Your task to perform on an android device: change the clock display to show seconds Image 0: 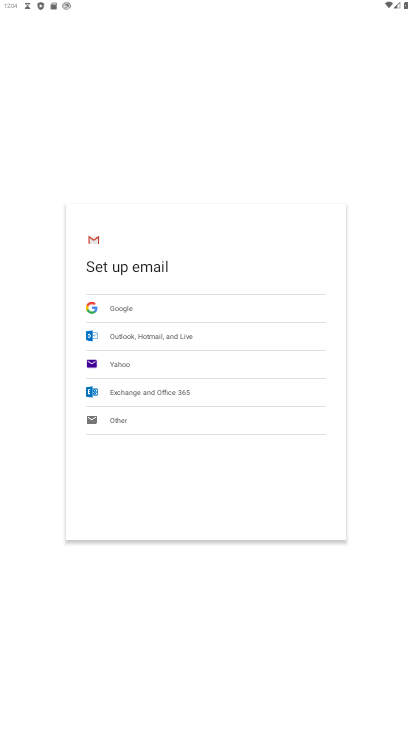
Step 0: press home button
Your task to perform on an android device: change the clock display to show seconds Image 1: 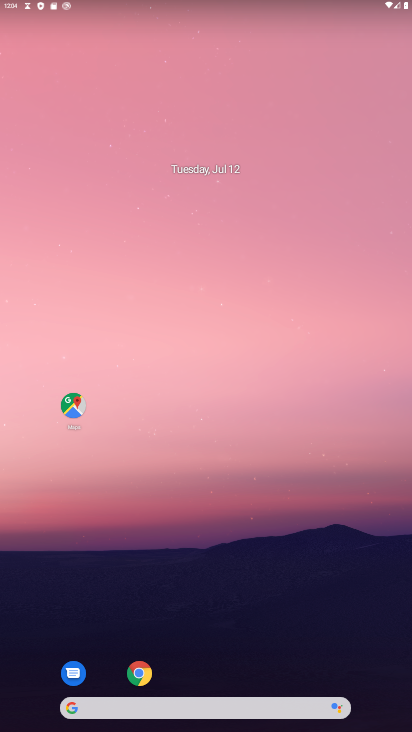
Step 1: drag from (311, 600) to (285, 47)
Your task to perform on an android device: change the clock display to show seconds Image 2: 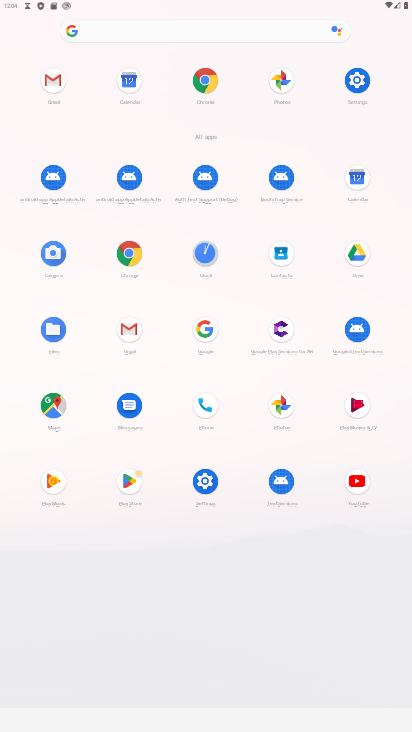
Step 2: click (208, 248)
Your task to perform on an android device: change the clock display to show seconds Image 3: 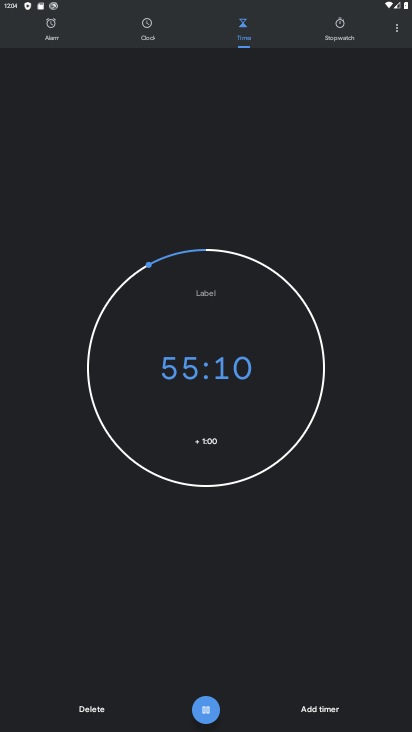
Step 3: click (395, 30)
Your task to perform on an android device: change the clock display to show seconds Image 4: 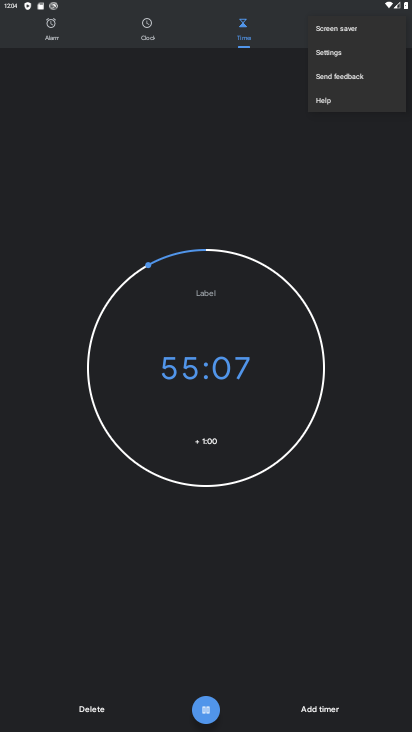
Step 4: click (377, 51)
Your task to perform on an android device: change the clock display to show seconds Image 5: 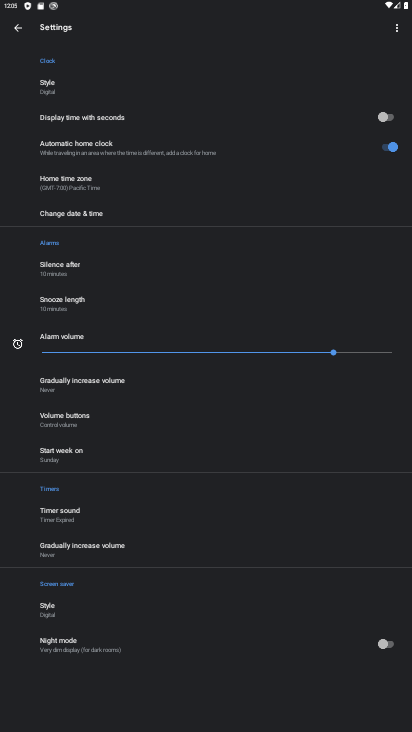
Step 5: click (383, 115)
Your task to perform on an android device: change the clock display to show seconds Image 6: 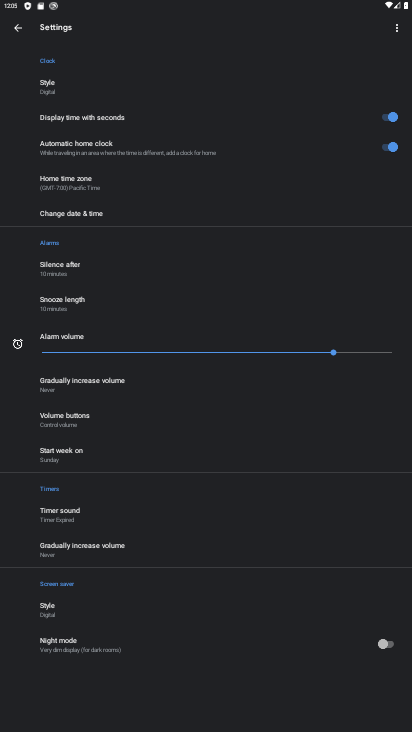
Step 6: task complete